Your task to perform on an android device: Open Google Image 0: 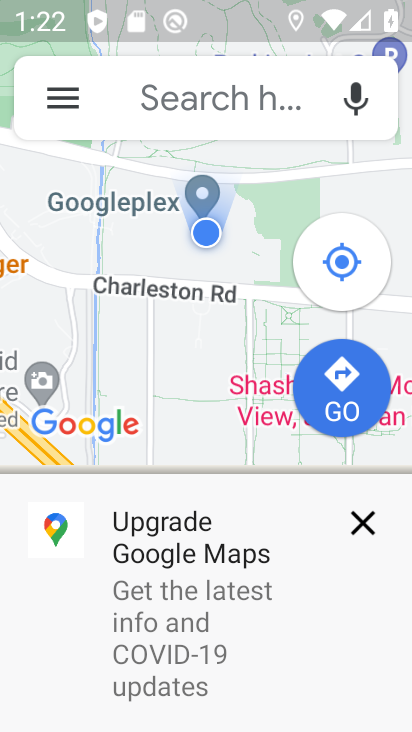
Step 0: press home button
Your task to perform on an android device: Open Google Image 1: 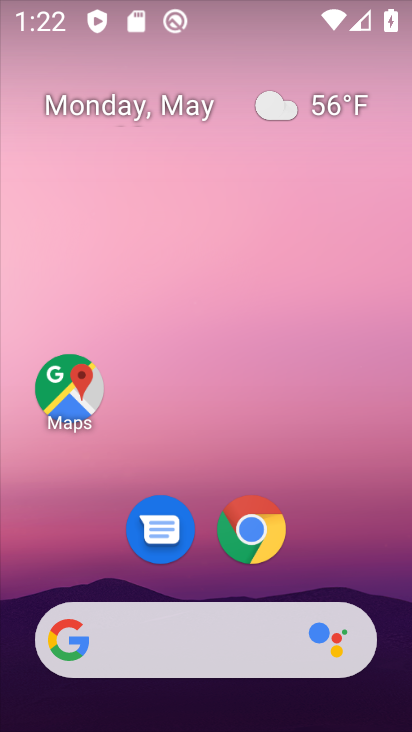
Step 1: drag from (210, 586) to (167, 24)
Your task to perform on an android device: Open Google Image 2: 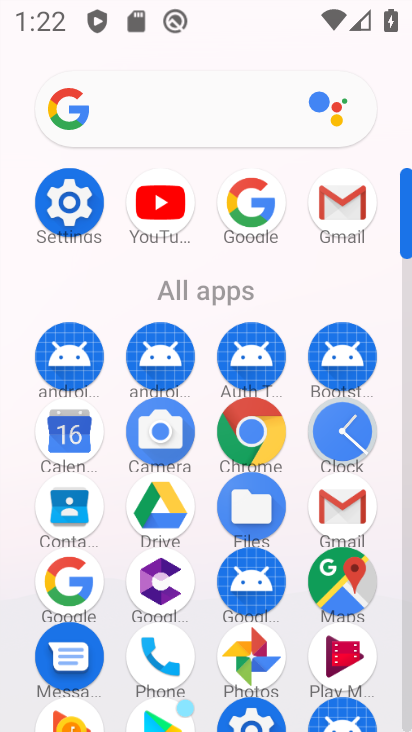
Step 2: click (64, 572)
Your task to perform on an android device: Open Google Image 3: 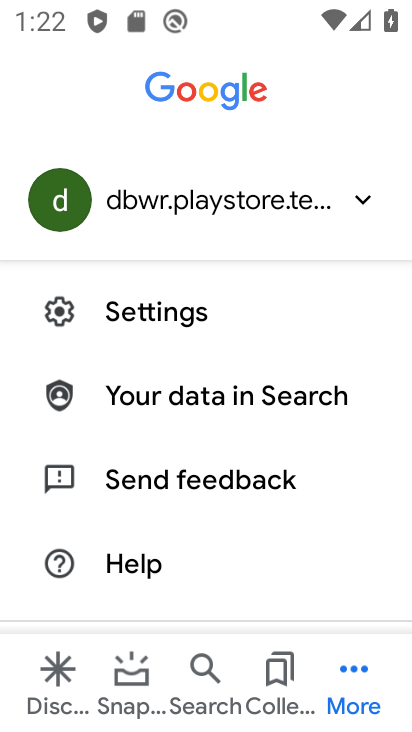
Step 3: task complete